Your task to perform on an android device: Add "razer kraken" to the cart on target.com, then select checkout. Image 0: 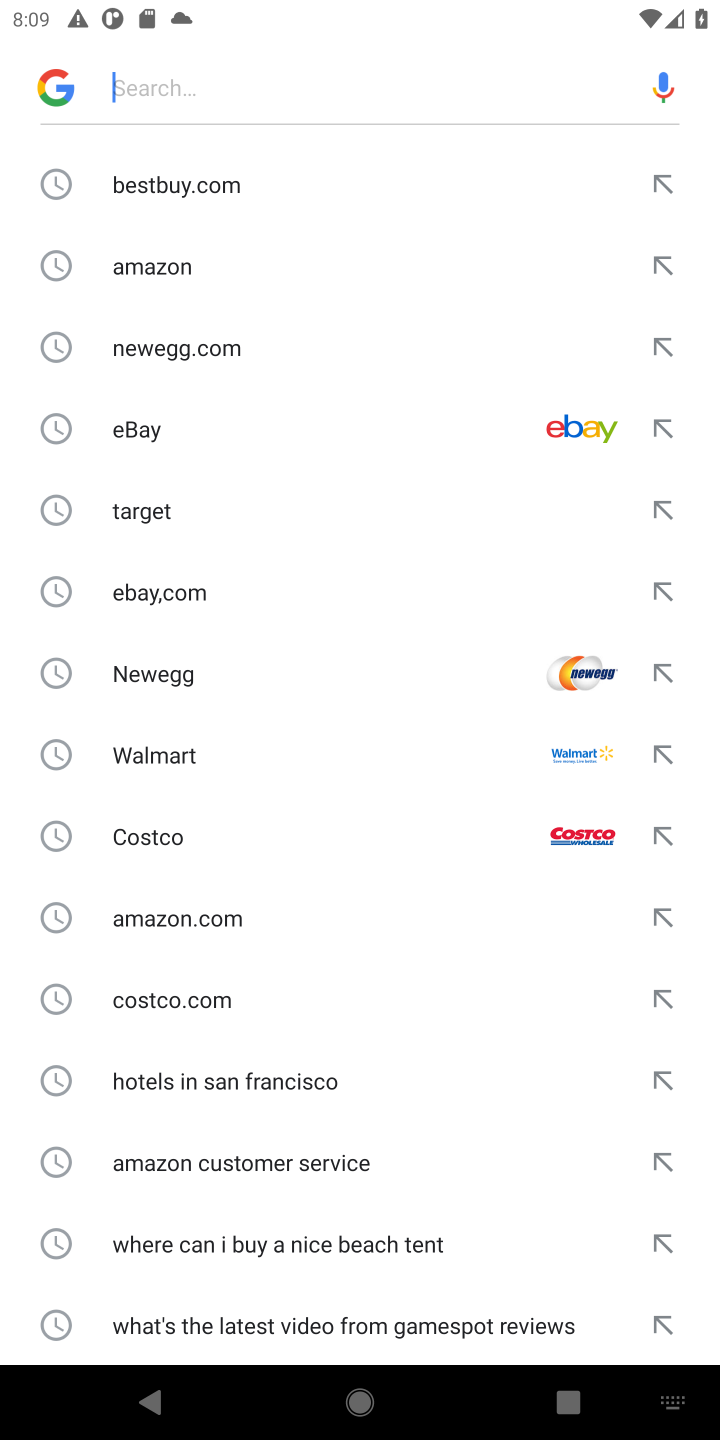
Step 0: press home button
Your task to perform on an android device: Add "razer kraken" to the cart on target.com, then select checkout. Image 1: 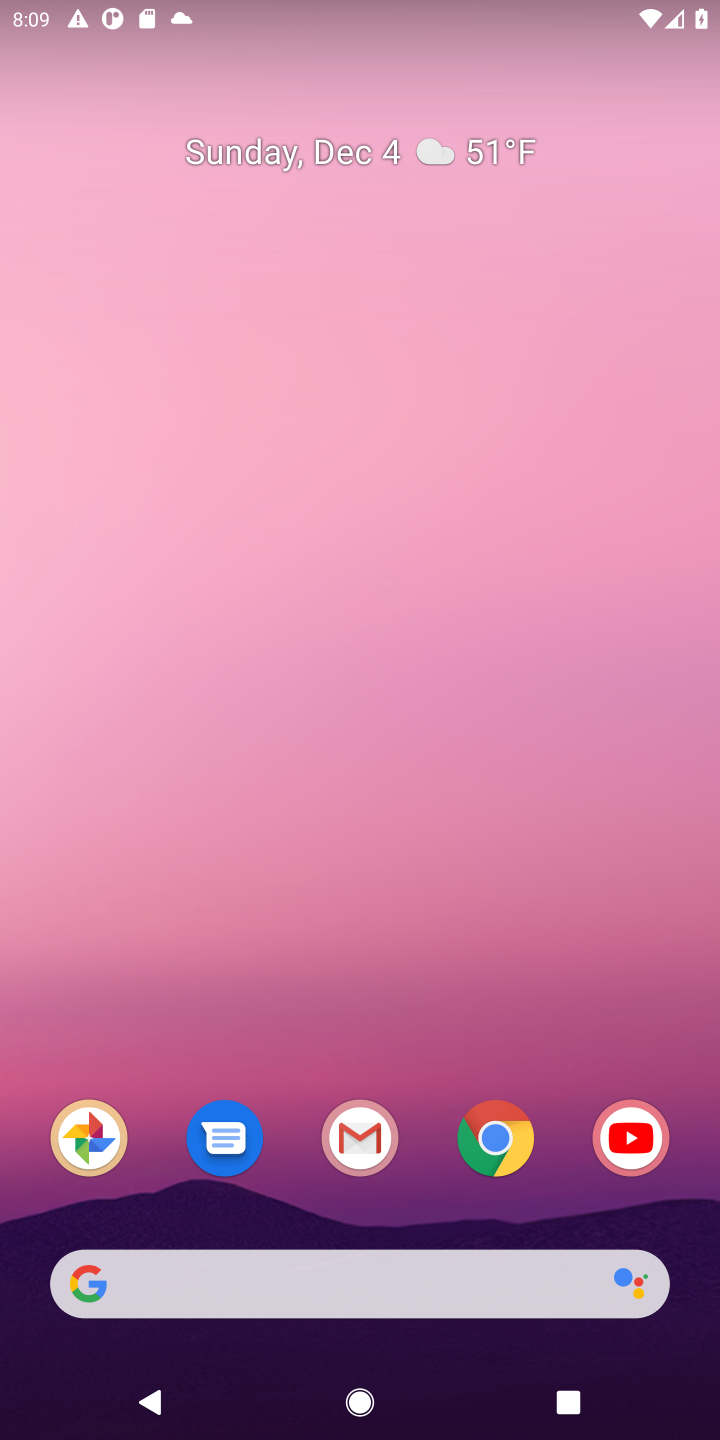
Step 1: click (501, 1138)
Your task to perform on an android device: Add "razer kraken" to the cart on target.com, then select checkout. Image 2: 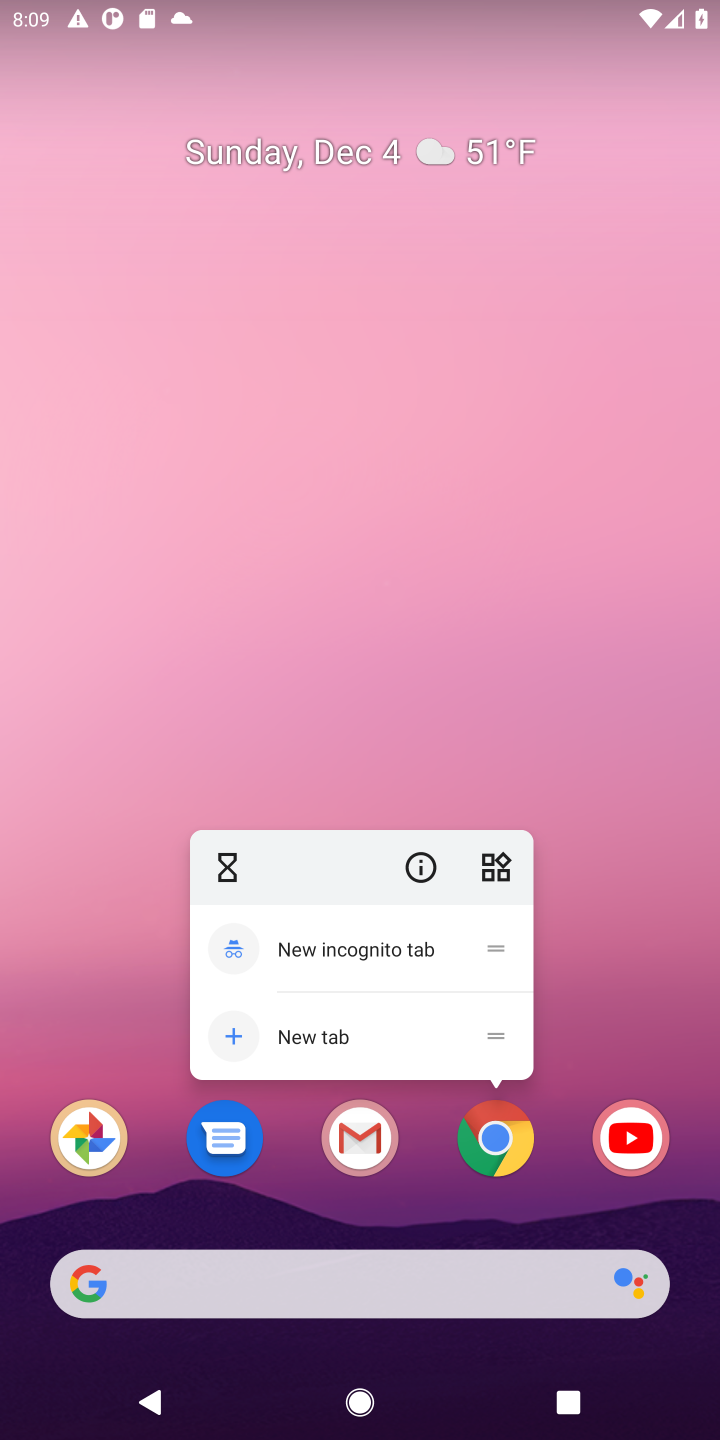
Step 2: click (502, 1136)
Your task to perform on an android device: Add "razer kraken" to the cart on target.com, then select checkout. Image 3: 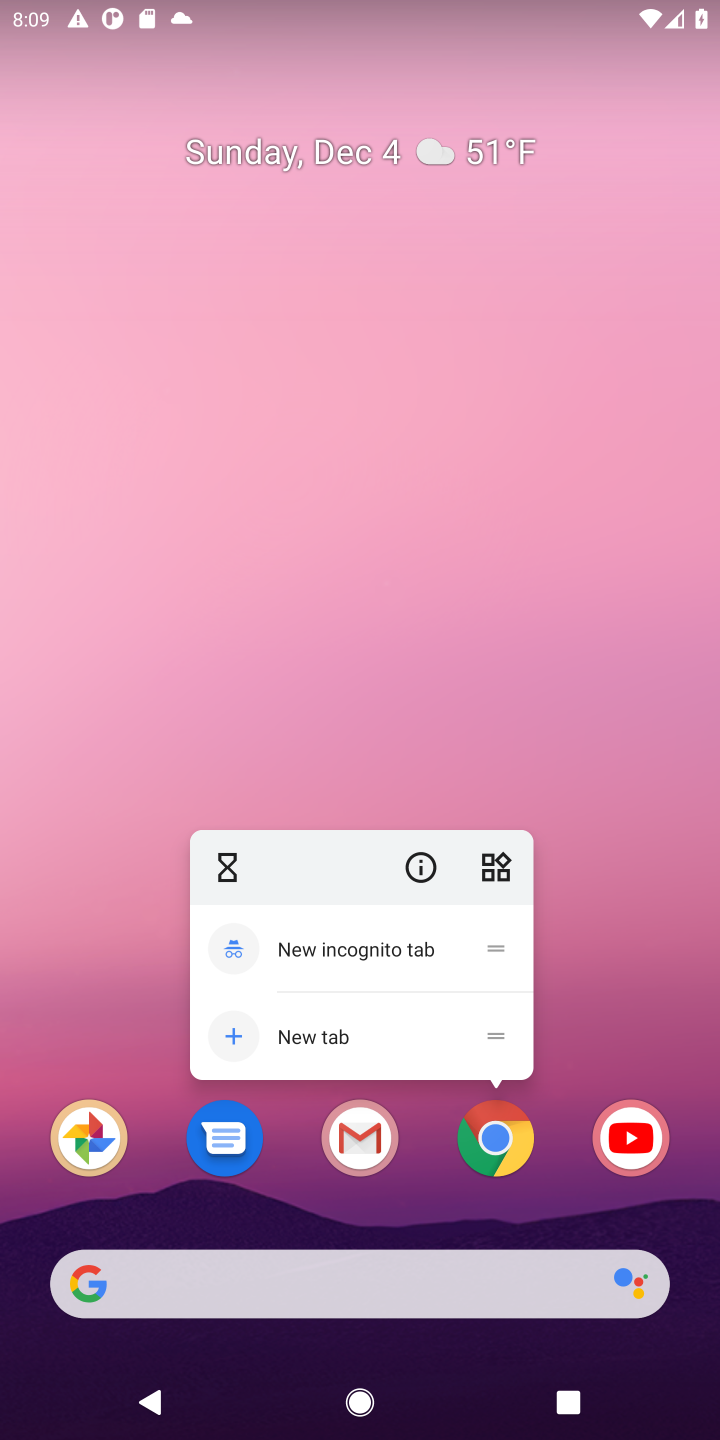
Step 3: click (502, 1136)
Your task to perform on an android device: Add "razer kraken" to the cart on target.com, then select checkout. Image 4: 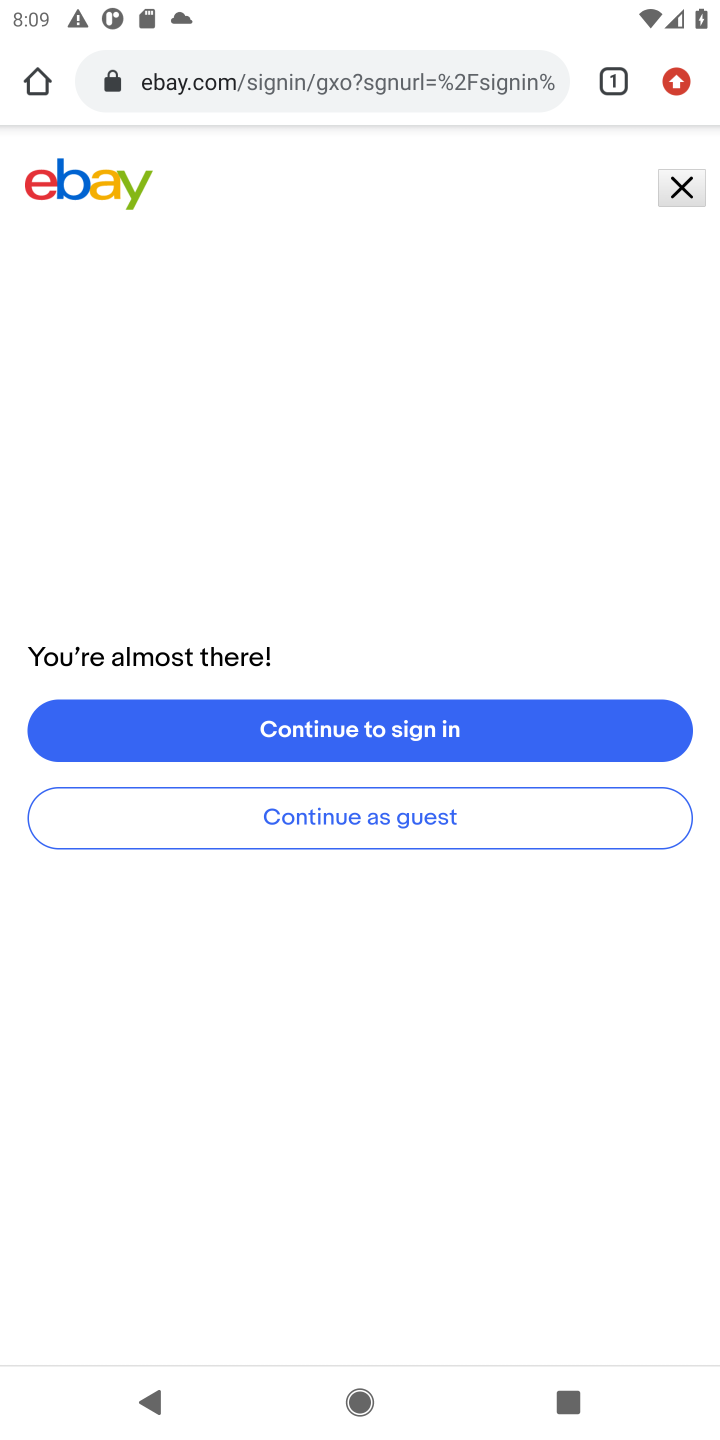
Step 4: click (411, 69)
Your task to perform on an android device: Add "razer kraken" to the cart on target.com, then select checkout. Image 5: 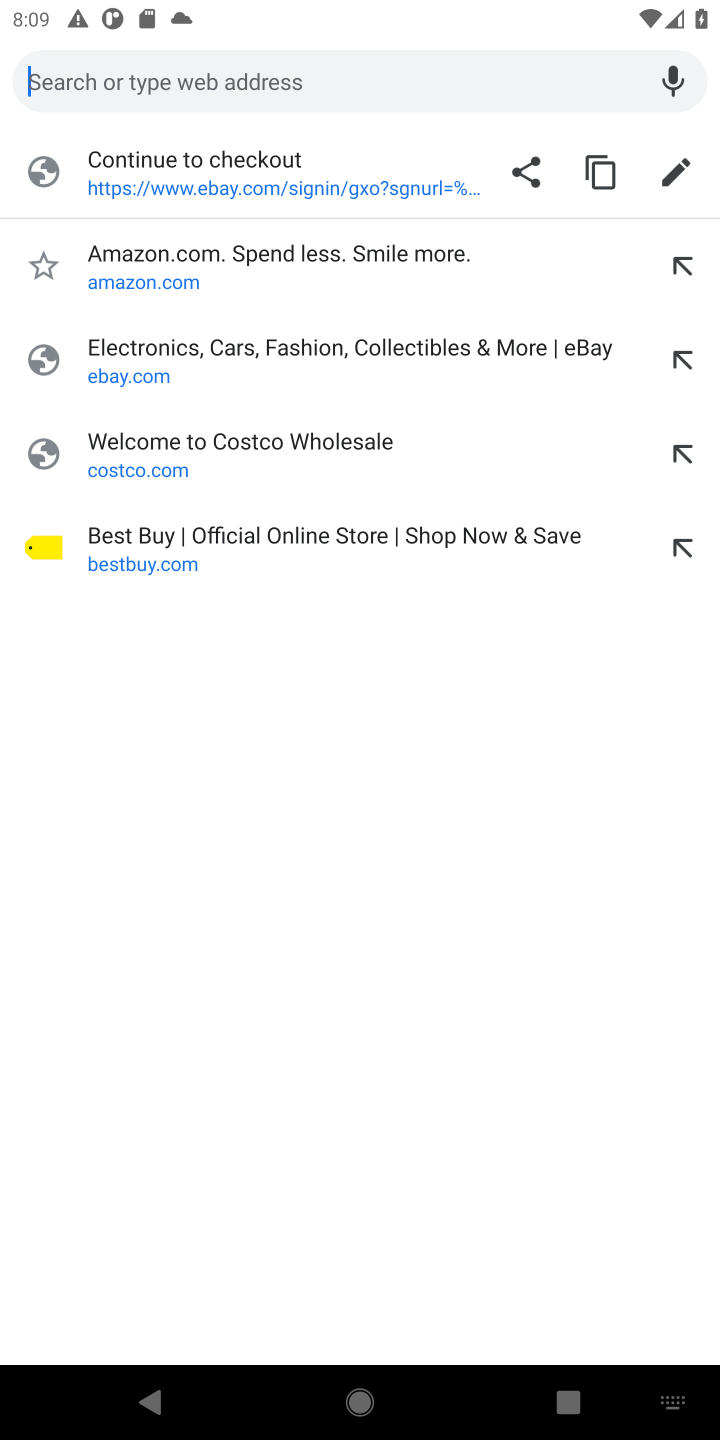
Step 5: type "target.com"
Your task to perform on an android device: Add "razer kraken" to the cart on target.com, then select checkout. Image 6: 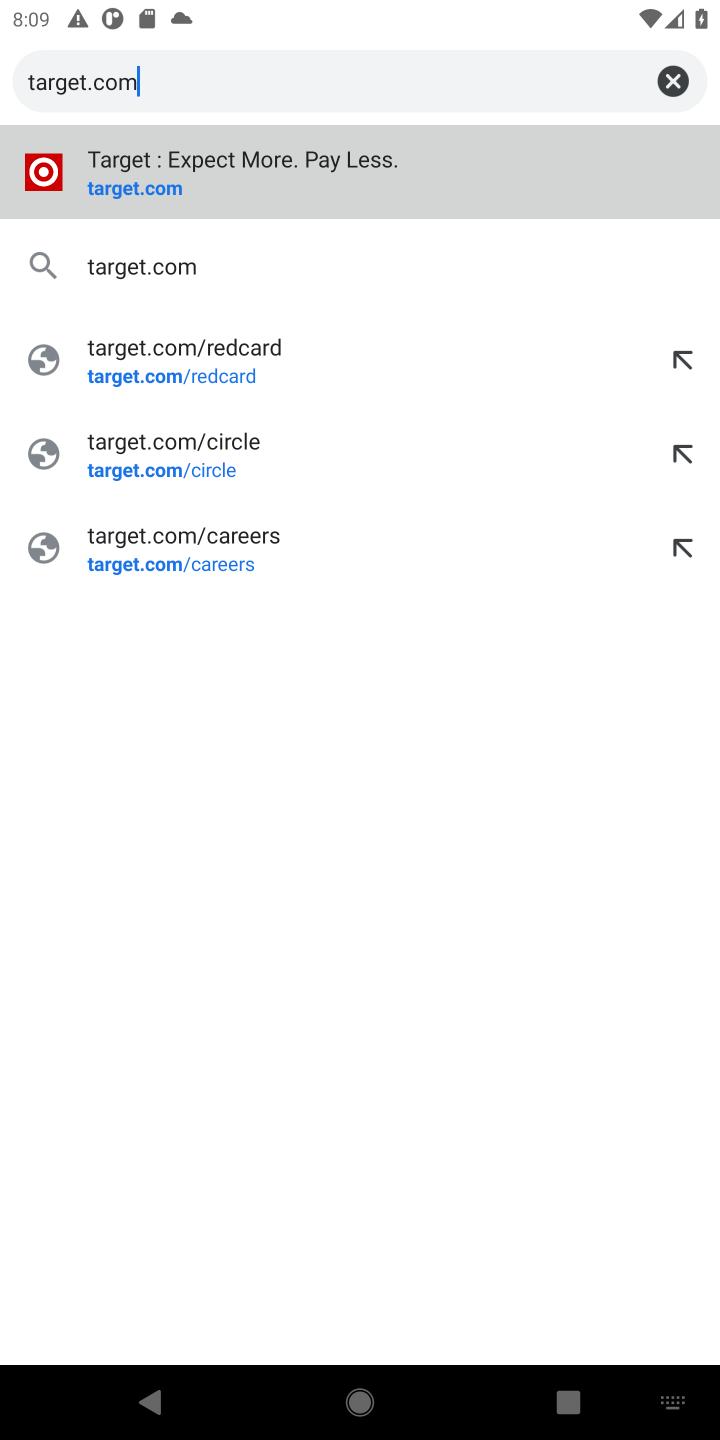
Step 6: press enter
Your task to perform on an android device: Add "razer kraken" to the cart on target.com, then select checkout. Image 7: 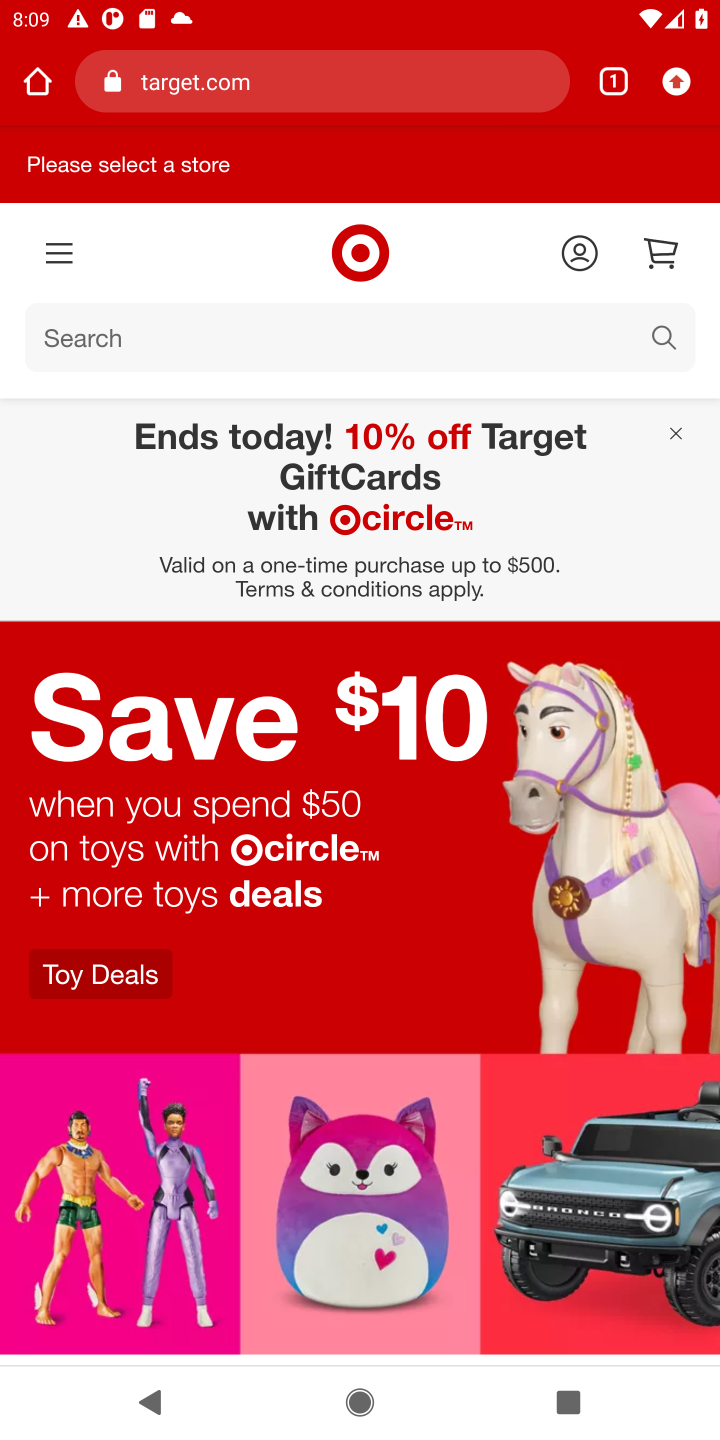
Step 7: click (651, 336)
Your task to perform on an android device: Add "razer kraken" to the cart on target.com, then select checkout. Image 8: 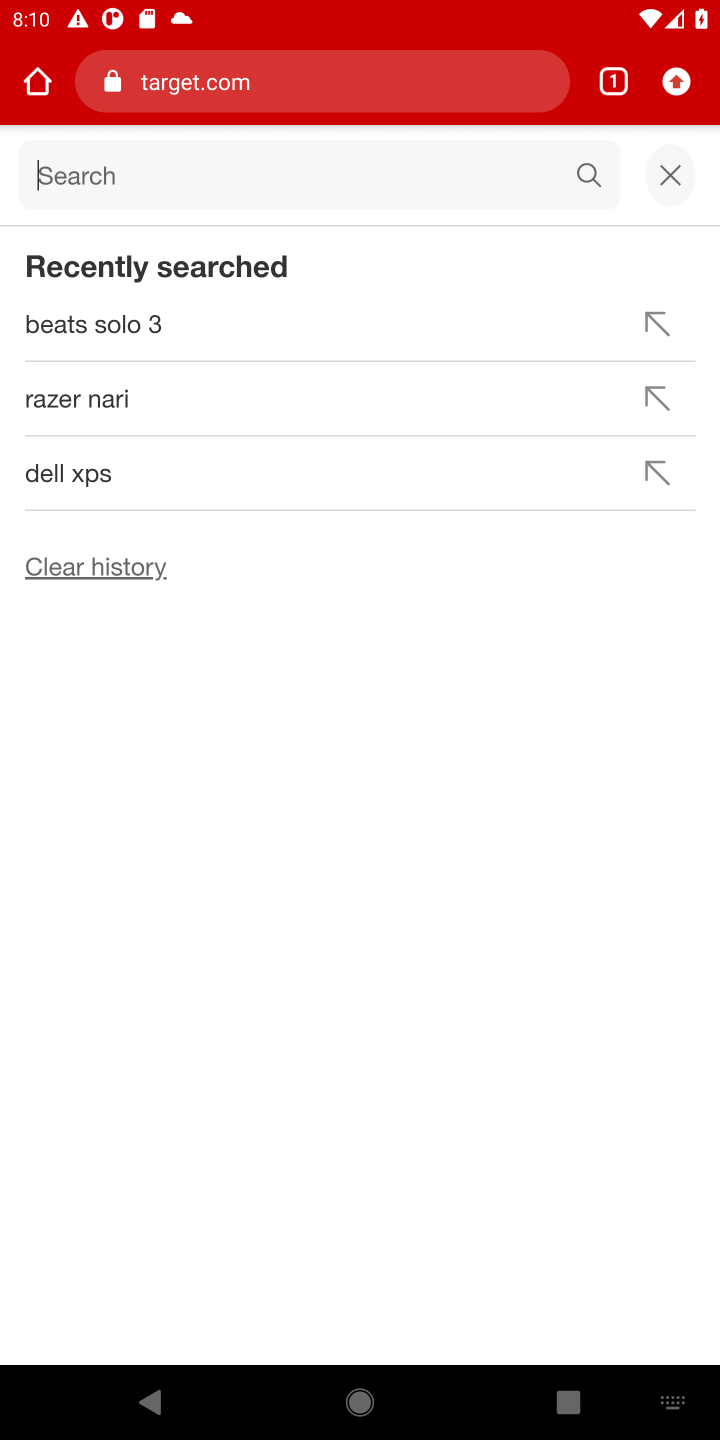
Step 8: type "razer kraken"
Your task to perform on an android device: Add "razer kraken" to the cart on target.com, then select checkout. Image 9: 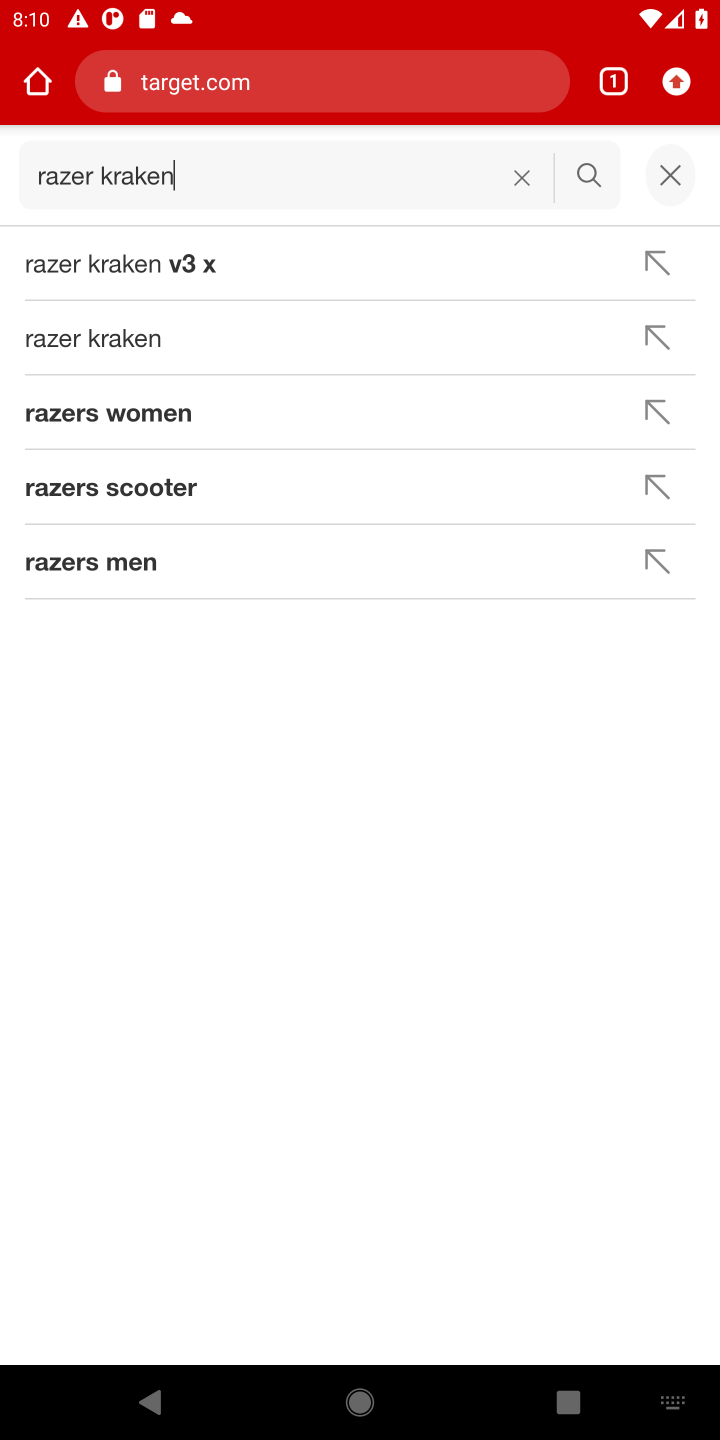
Step 9: press enter
Your task to perform on an android device: Add "razer kraken" to the cart on target.com, then select checkout. Image 10: 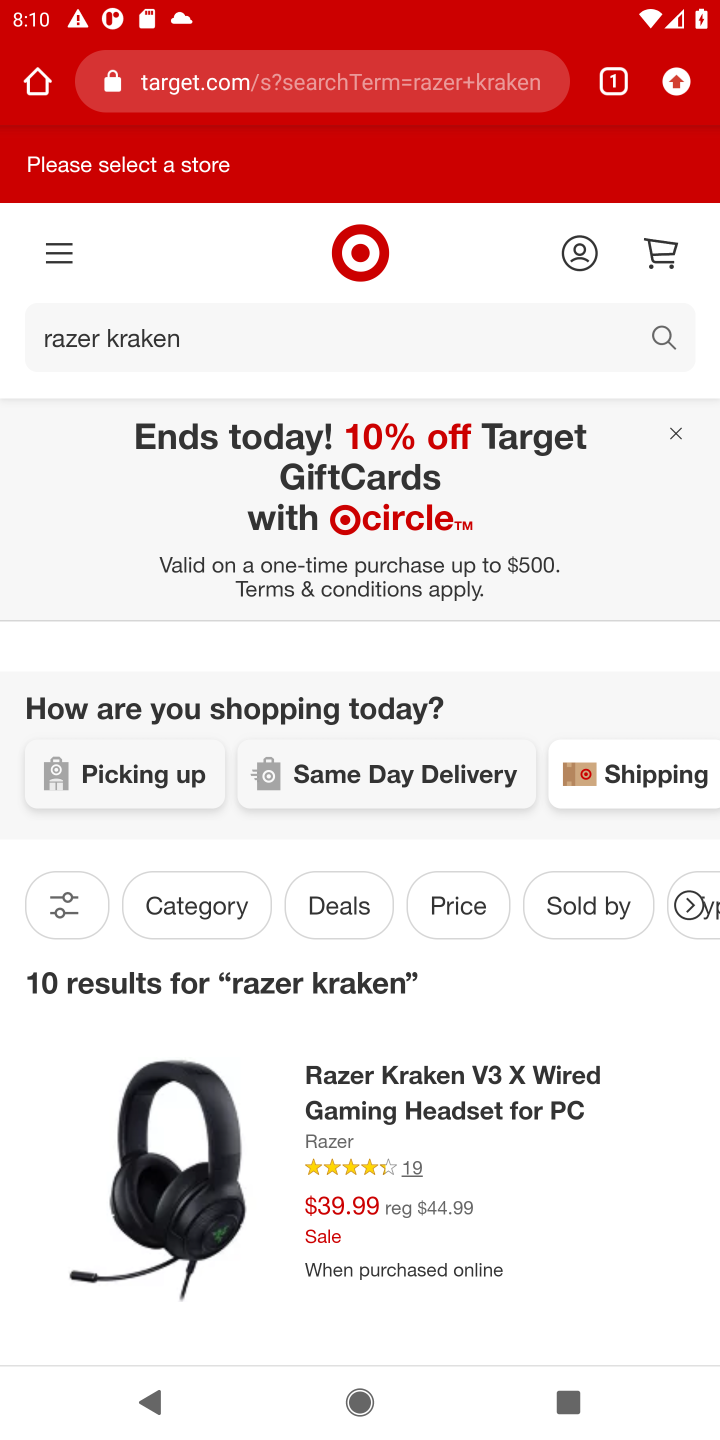
Step 10: click (170, 1139)
Your task to perform on an android device: Add "razer kraken" to the cart on target.com, then select checkout. Image 11: 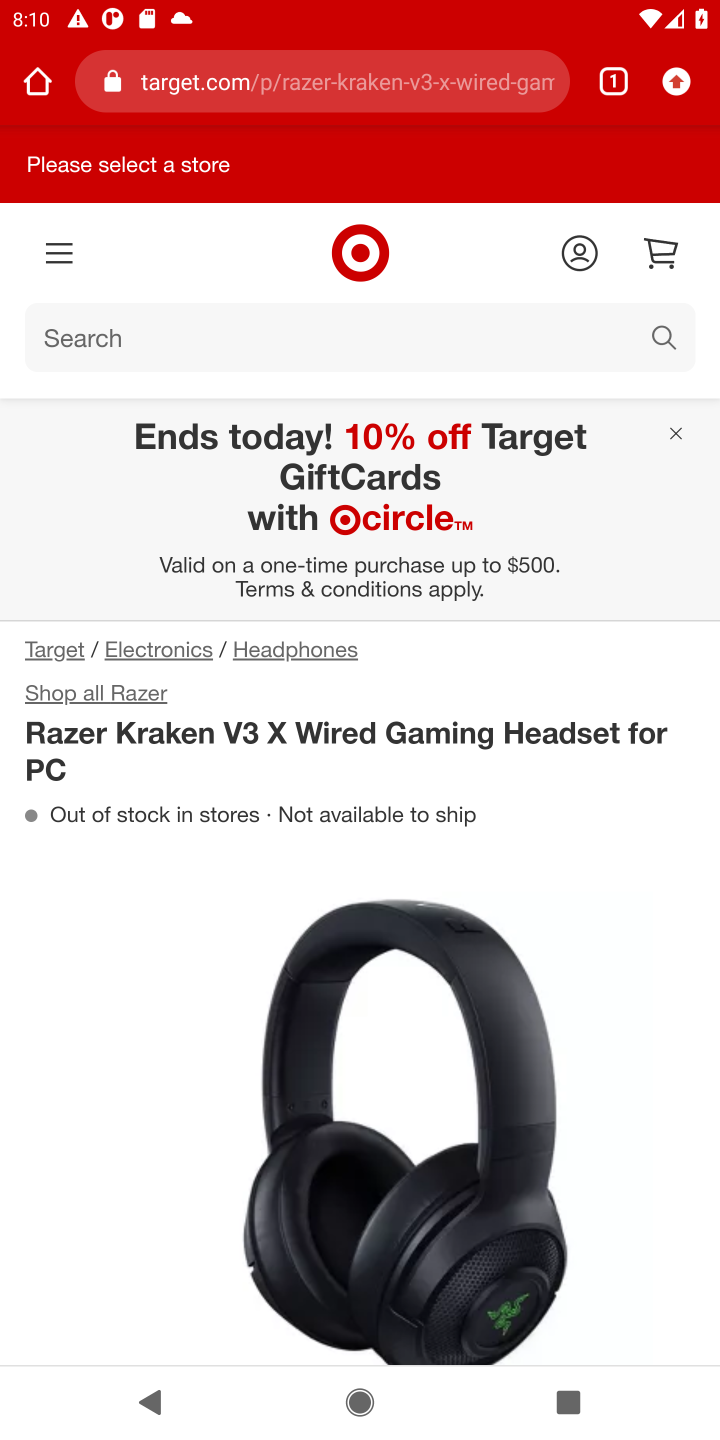
Step 11: drag from (451, 1030) to (536, 101)
Your task to perform on an android device: Add "razer kraken" to the cart on target.com, then select checkout. Image 12: 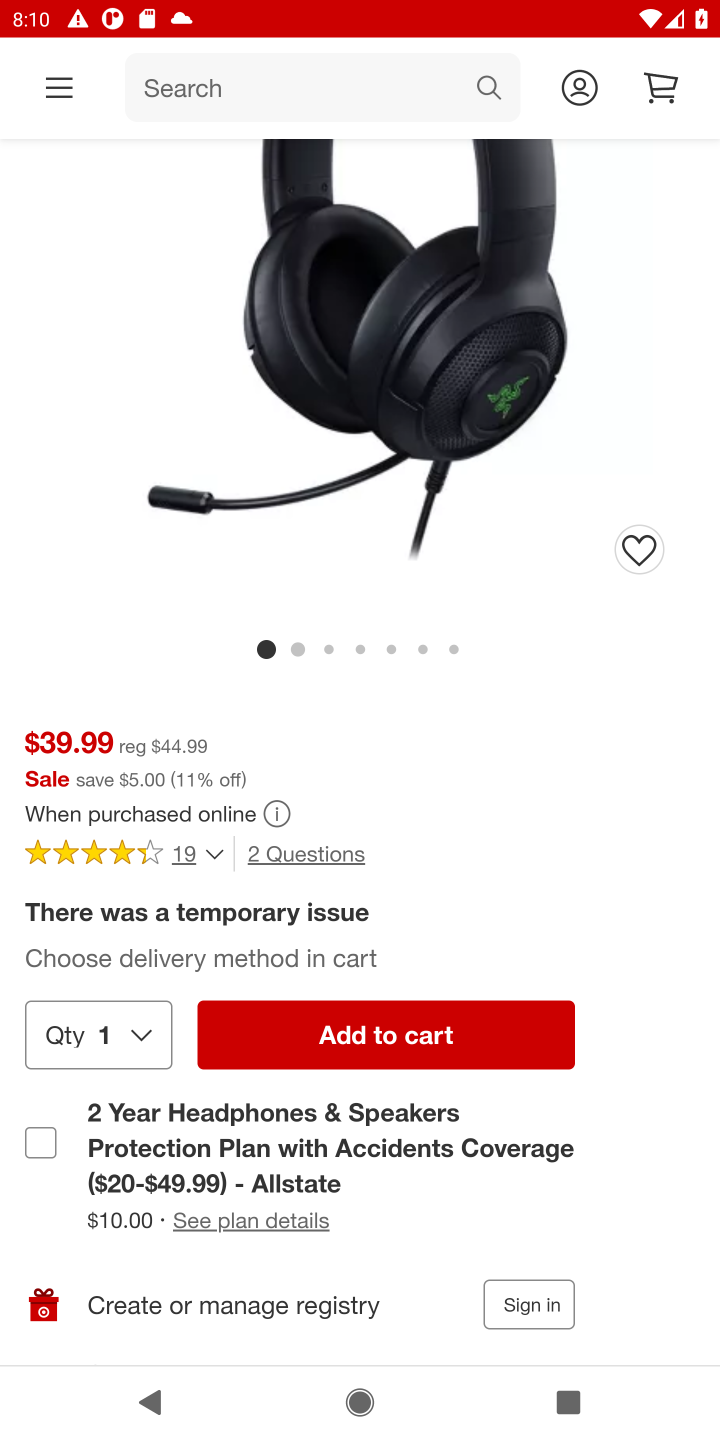
Step 12: click (406, 1033)
Your task to perform on an android device: Add "razer kraken" to the cart on target.com, then select checkout. Image 13: 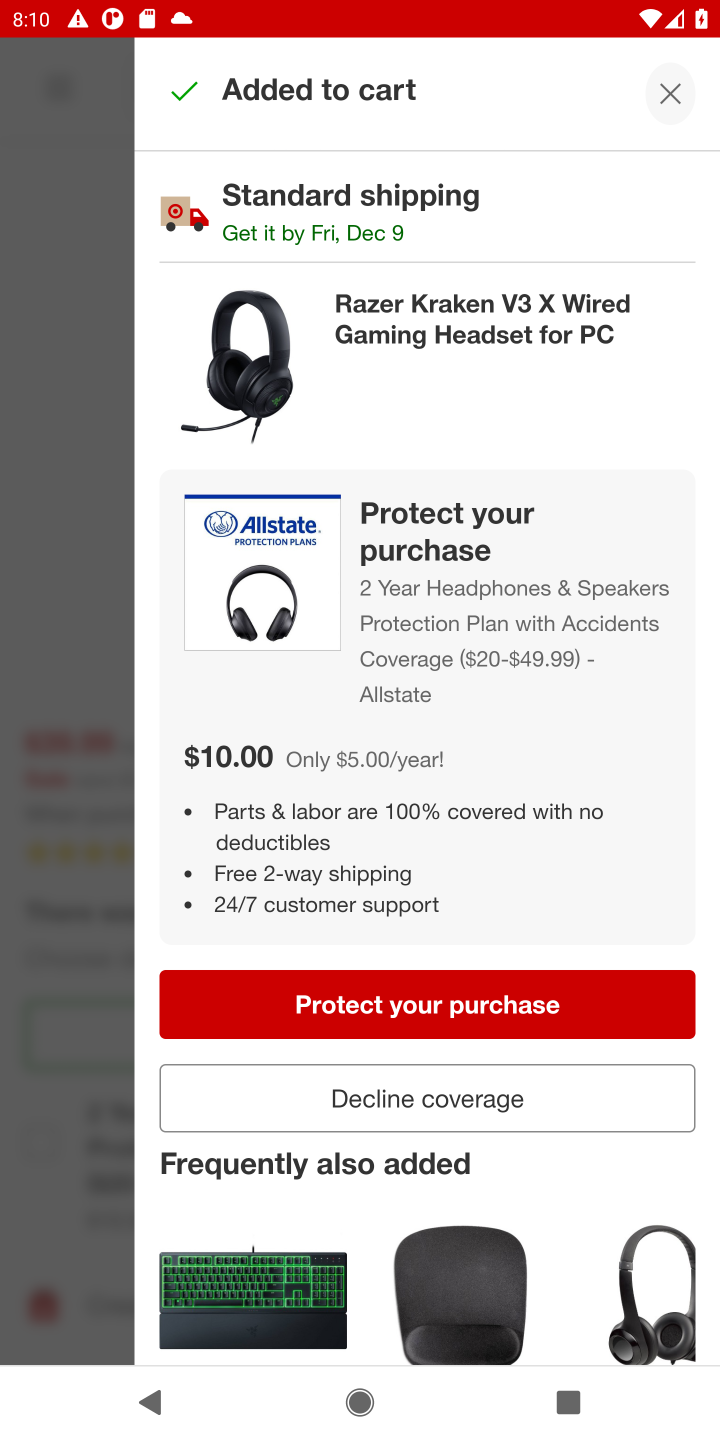
Step 13: click (662, 94)
Your task to perform on an android device: Add "razer kraken" to the cart on target.com, then select checkout. Image 14: 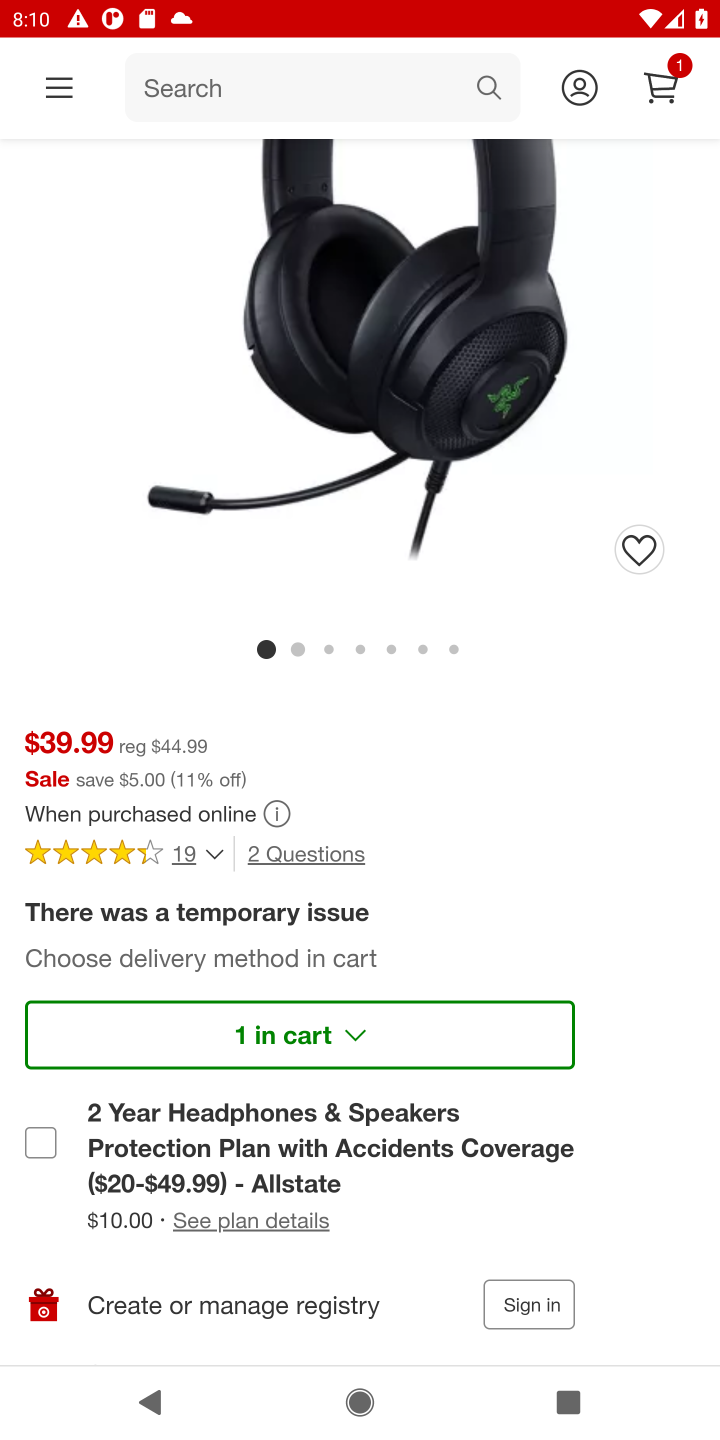
Step 14: click (664, 95)
Your task to perform on an android device: Add "razer kraken" to the cart on target.com, then select checkout. Image 15: 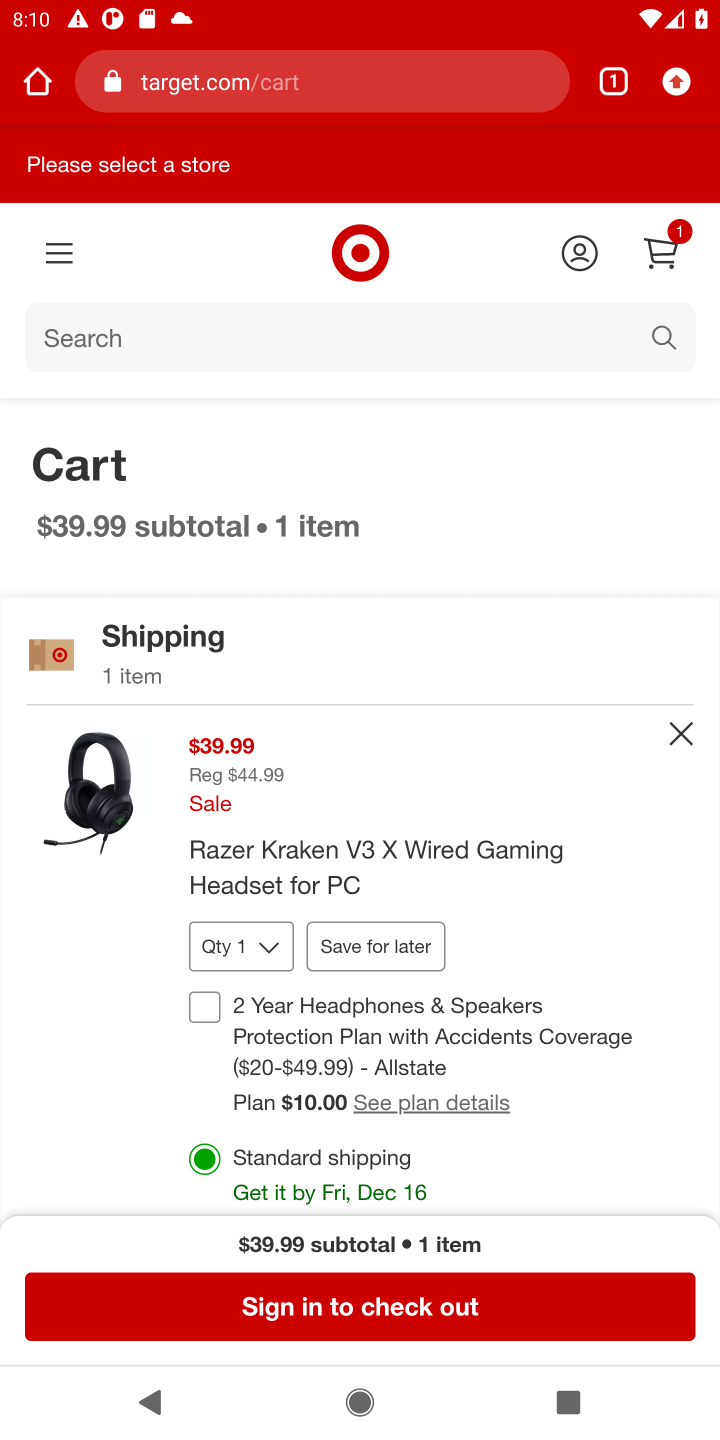
Step 15: click (350, 1298)
Your task to perform on an android device: Add "razer kraken" to the cart on target.com, then select checkout. Image 16: 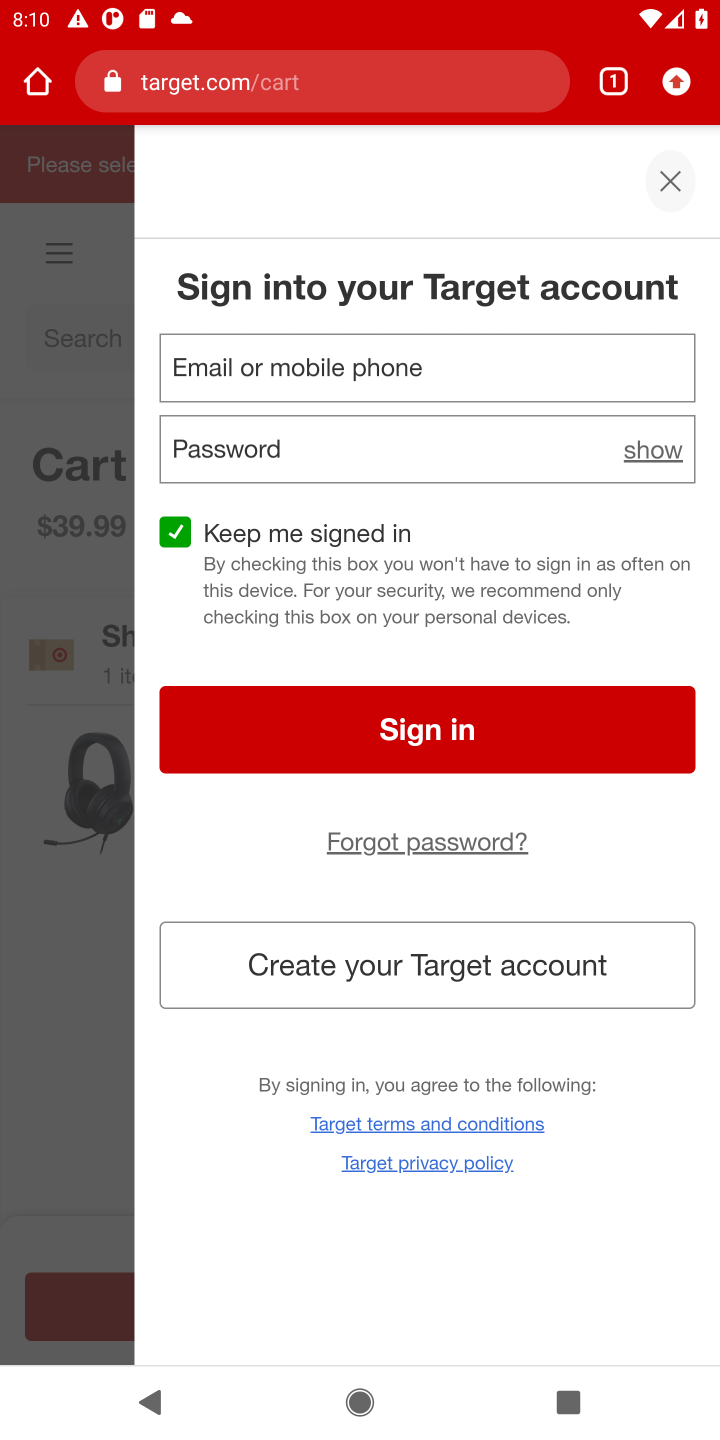
Step 16: task complete